Your task to perform on an android device: delete location history Image 0: 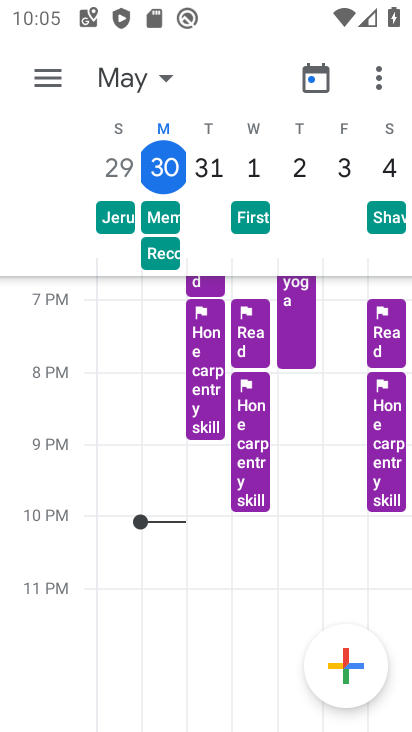
Step 0: press home button
Your task to perform on an android device: delete location history Image 1: 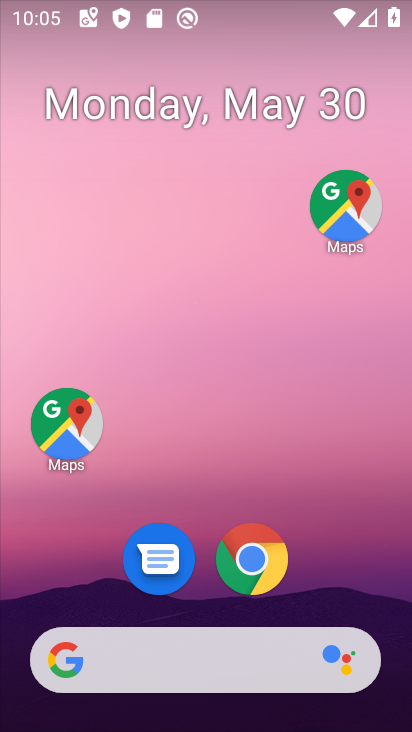
Step 1: click (340, 205)
Your task to perform on an android device: delete location history Image 2: 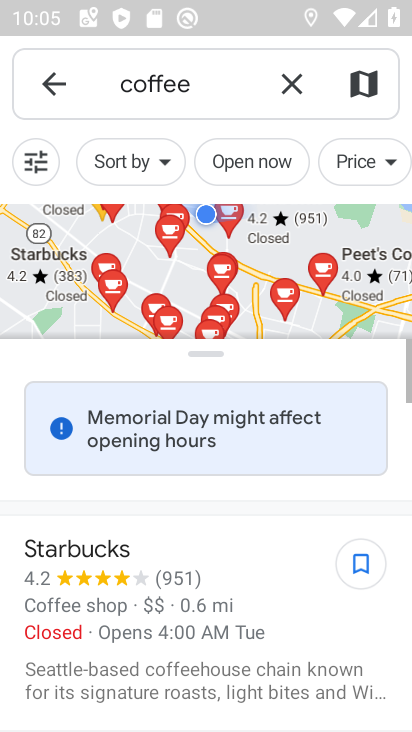
Step 2: click (58, 82)
Your task to perform on an android device: delete location history Image 3: 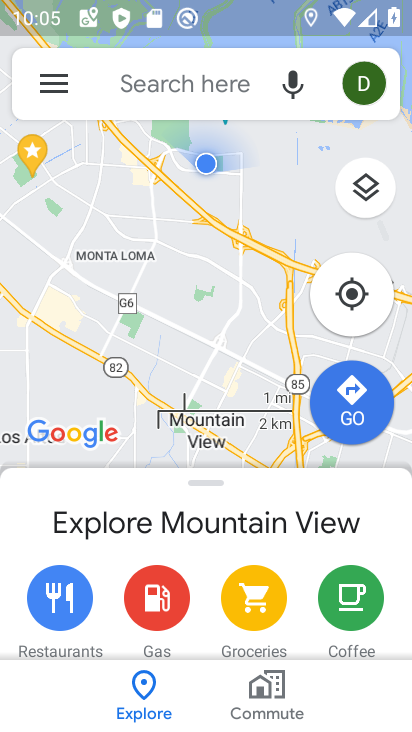
Step 3: click (57, 80)
Your task to perform on an android device: delete location history Image 4: 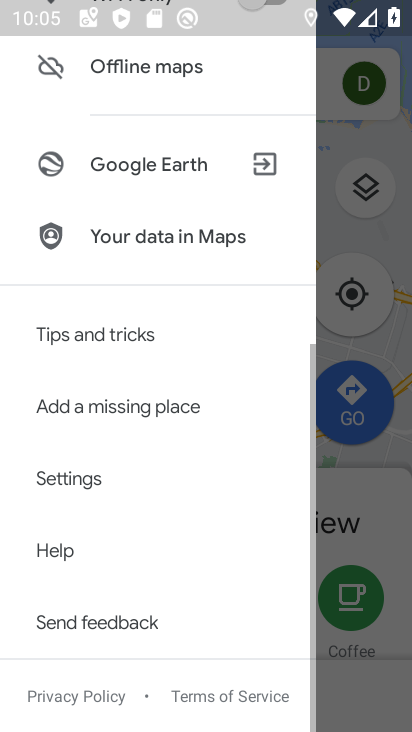
Step 4: drag from (175, 583) to (206, 89)
Your task to perform on an android device: delete location history Image 5: 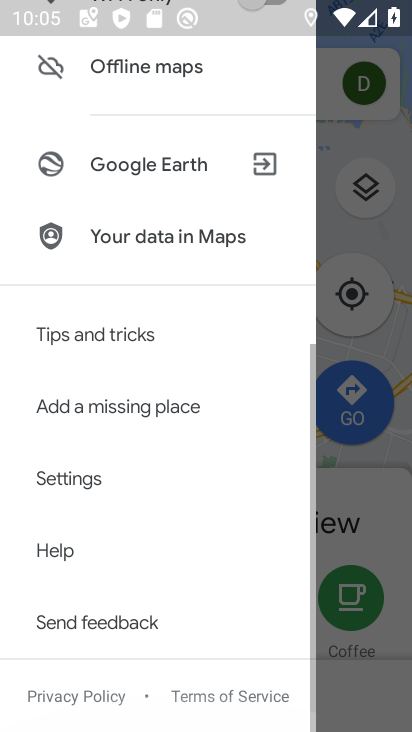
Step 5: click (215, 58)
Your task to perform on an android device: delete location history Image 6: 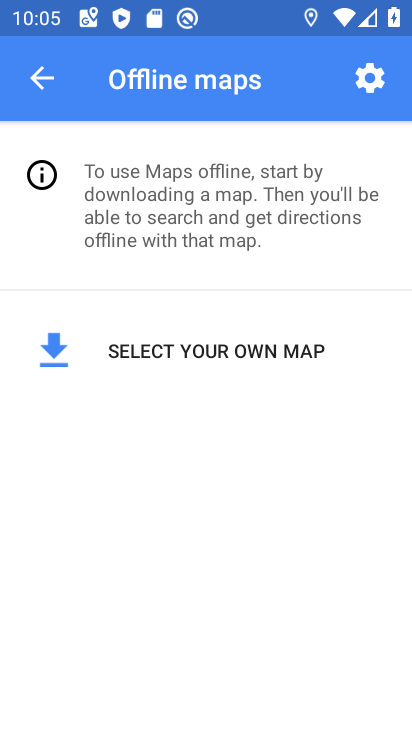
Step 6: click (47, 67)
Your task to perform on an android device: delete location history Image 7: 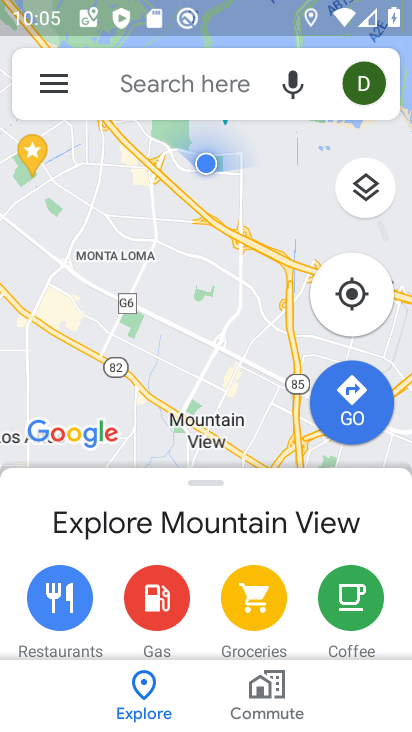
Step 7: click (58, 93)
Your task to perform on an android device: delete location history Image 8: 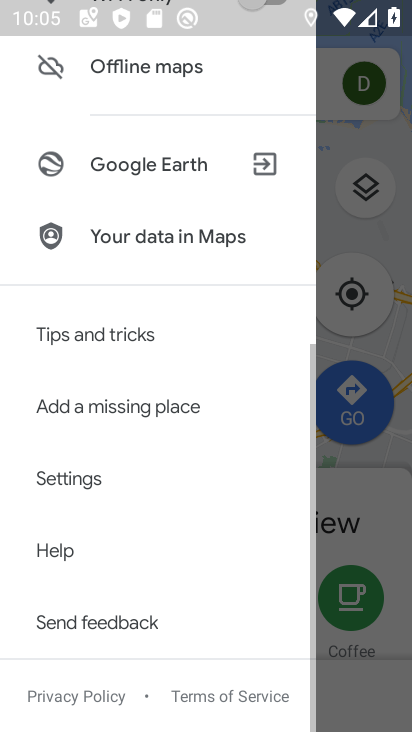
Step 8: click (86, 478)
Your task to perform on an android device: delete location history Image 9: 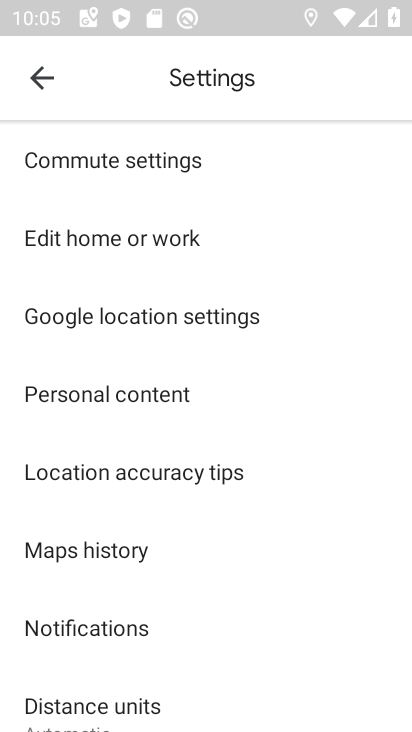
Step 9: click (127, 562)
Your task to perform on an android device: delete location history Image 10: 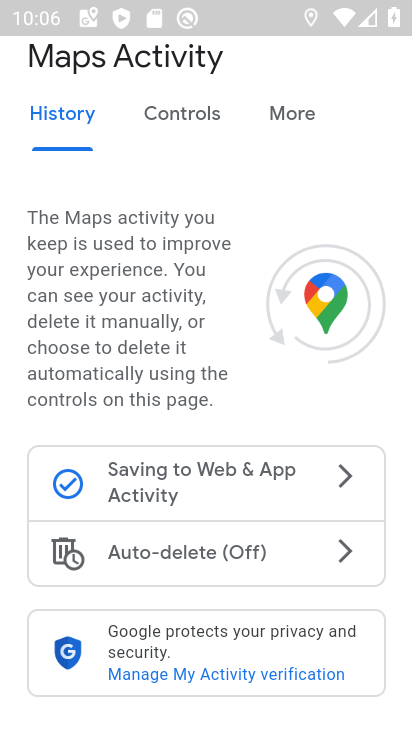
Step 10: drag from (240, 607) to (273, 149)
Your task to perform on an android device: delete location history Image 11: 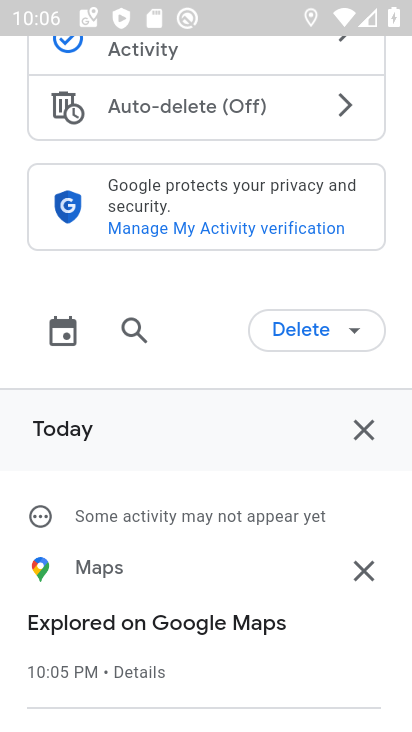
Step 11: click (357, 333)
Your task to perform on an android device: delete location history Image 12: 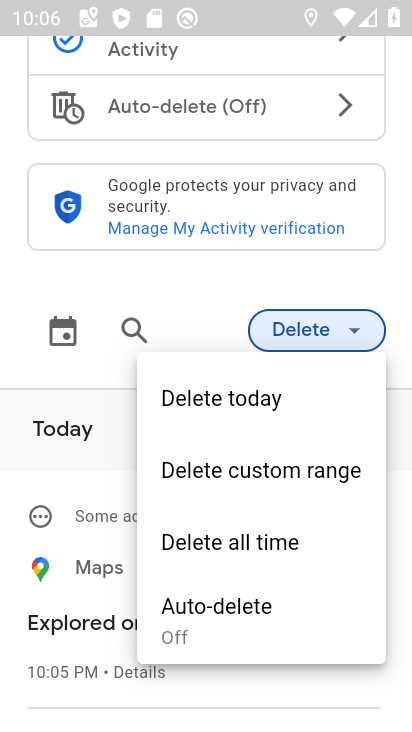
Step 12: click (235, 553)
Your task to perform on an android device: delete location history Image 13: 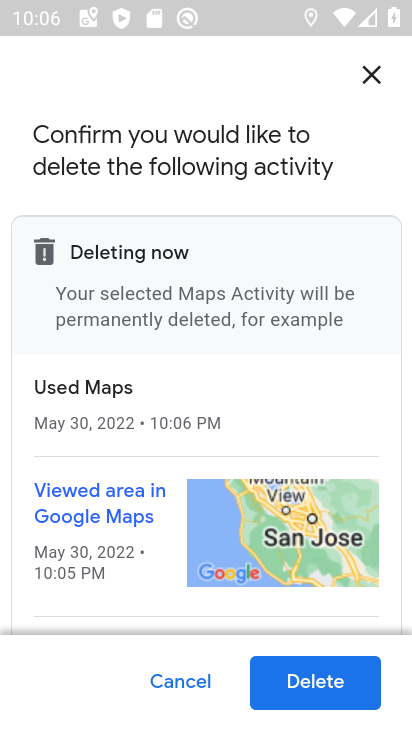
Step 13: click (320, 678)
Your task to perform on an android device: delete location history Image 14: 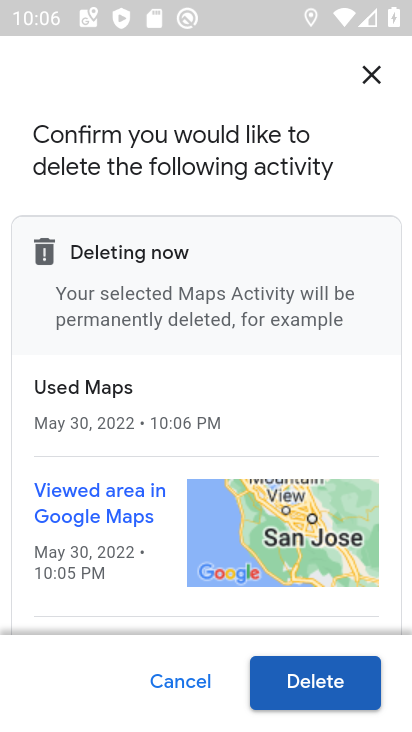
Step 14: click (321, 670)
Your task to perform on an android device: delete location history Image 15: 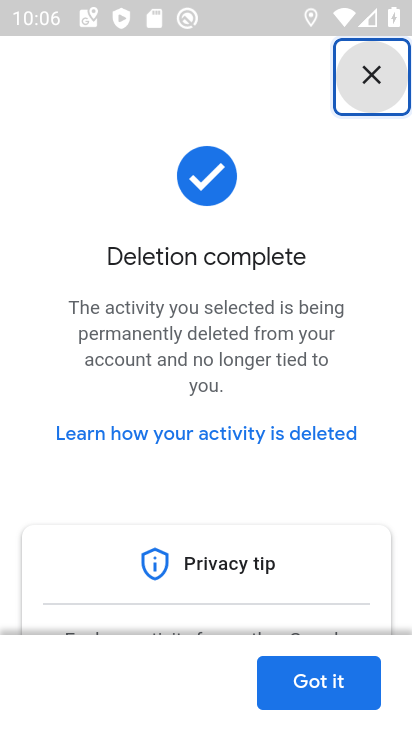
Step 15: task complete